Your task to perform on an android device: toggle pop-ups in chrome Image 0: 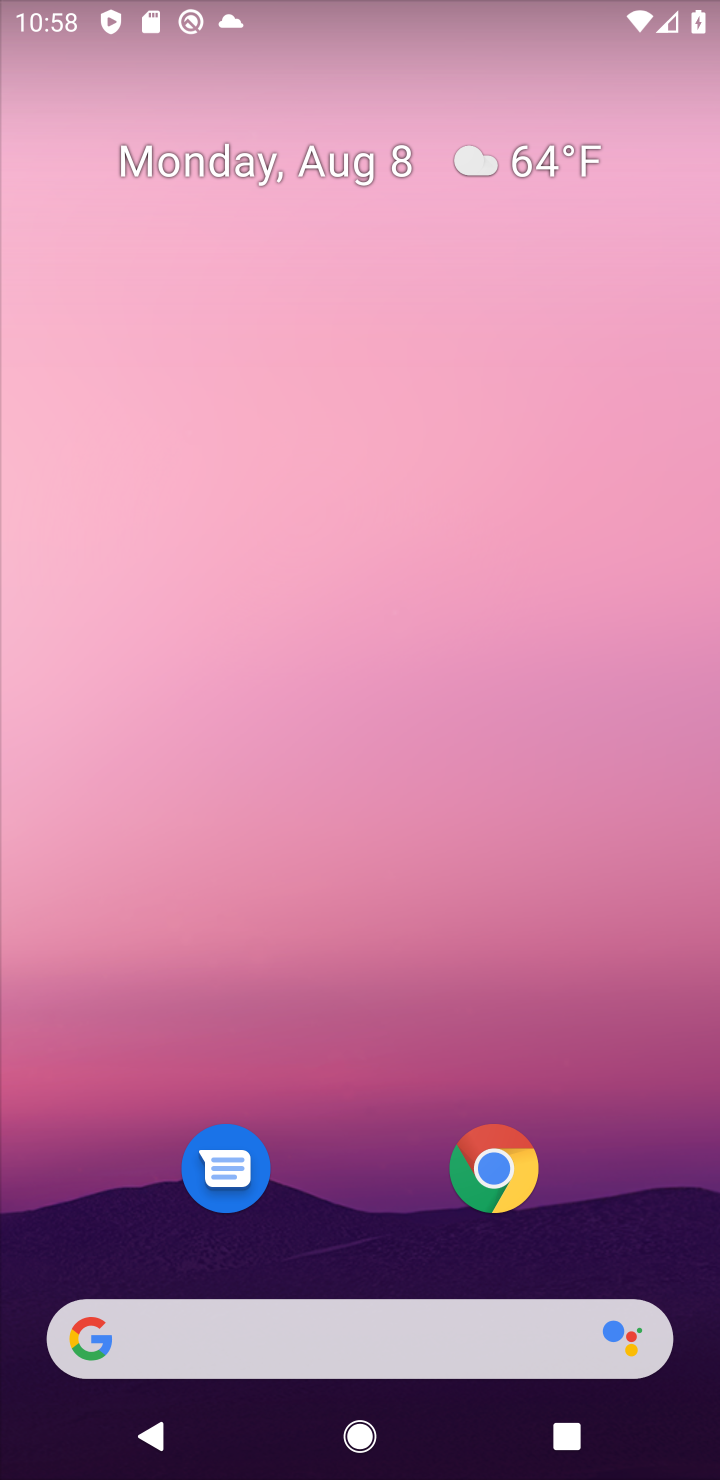
Step 0: click (502, 1171)
Your task to perform on an android device: toggle pop-ups in chrome Image 1: 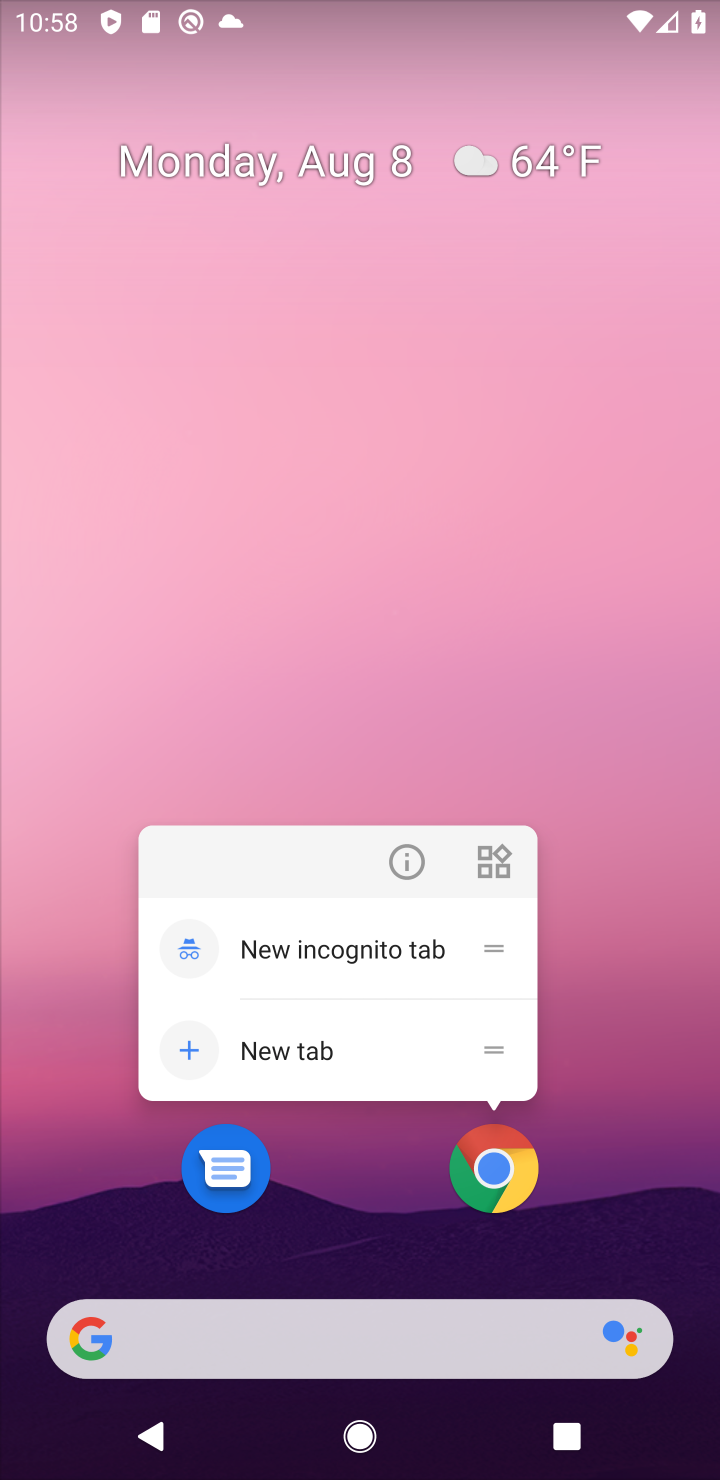
Step 1: click (503, 1170)
Your task to perform on an android device: toggle pop-ups in chrome Image 2: 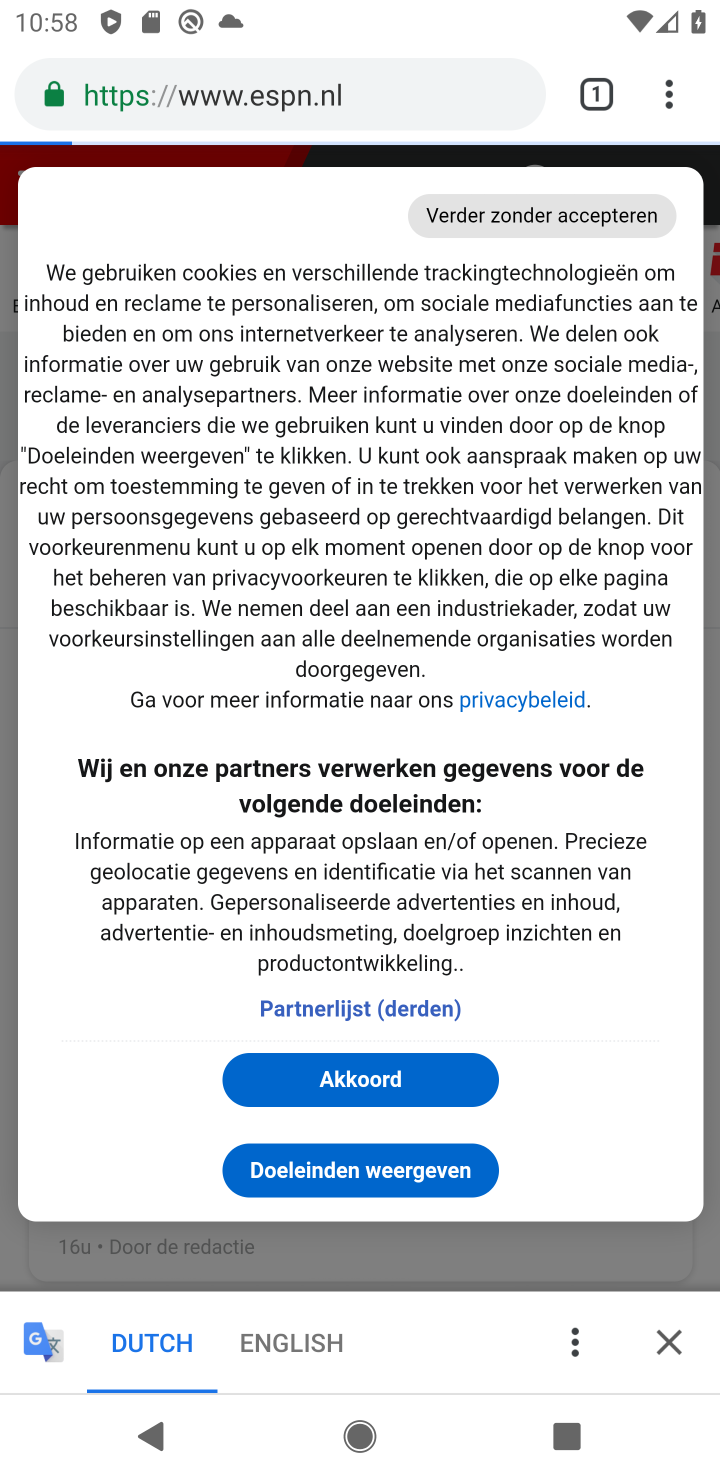
Step 2: click (690, 1334)
Your task to perform on an android device: toggle pop-ups in chrome Image 3: 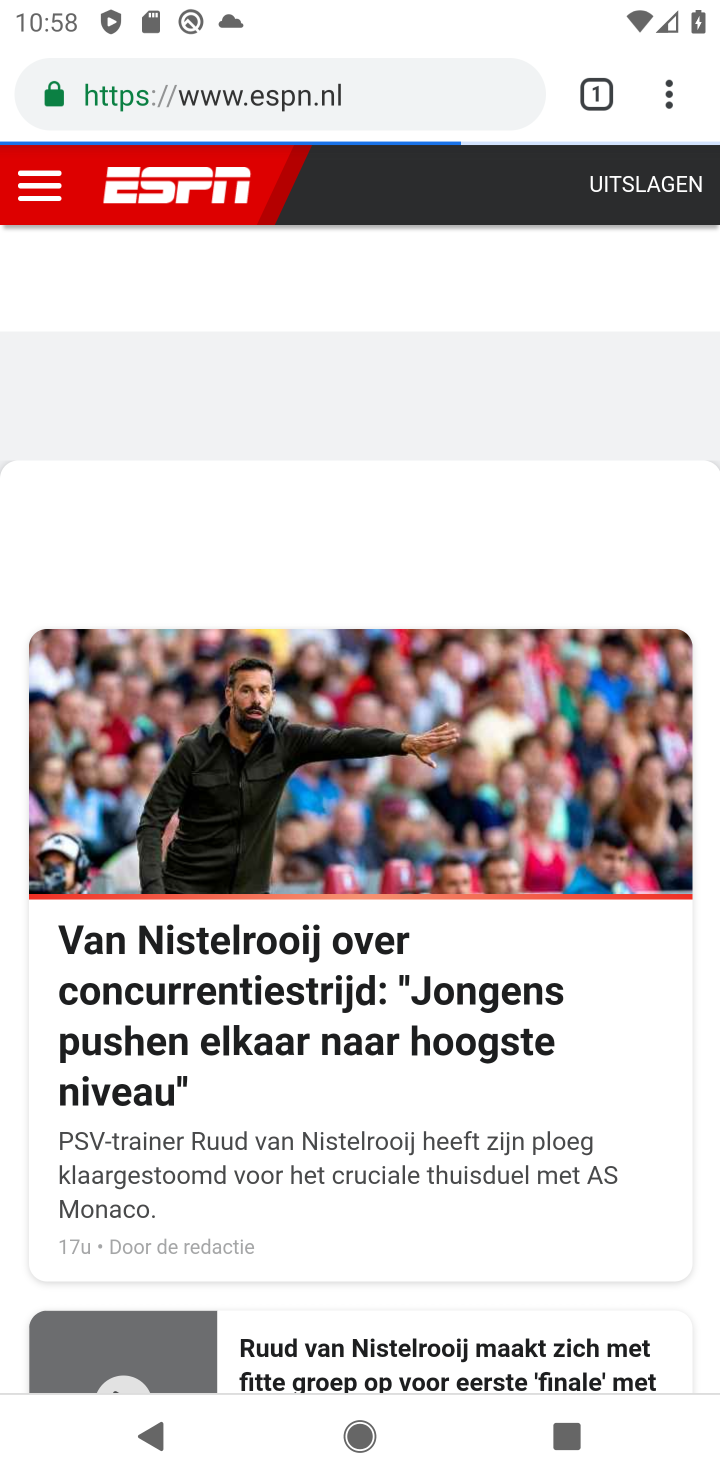
Step 3: click (668, 92)
Your task to perform on an android device: toggle pop-ups in chrome Image 4: 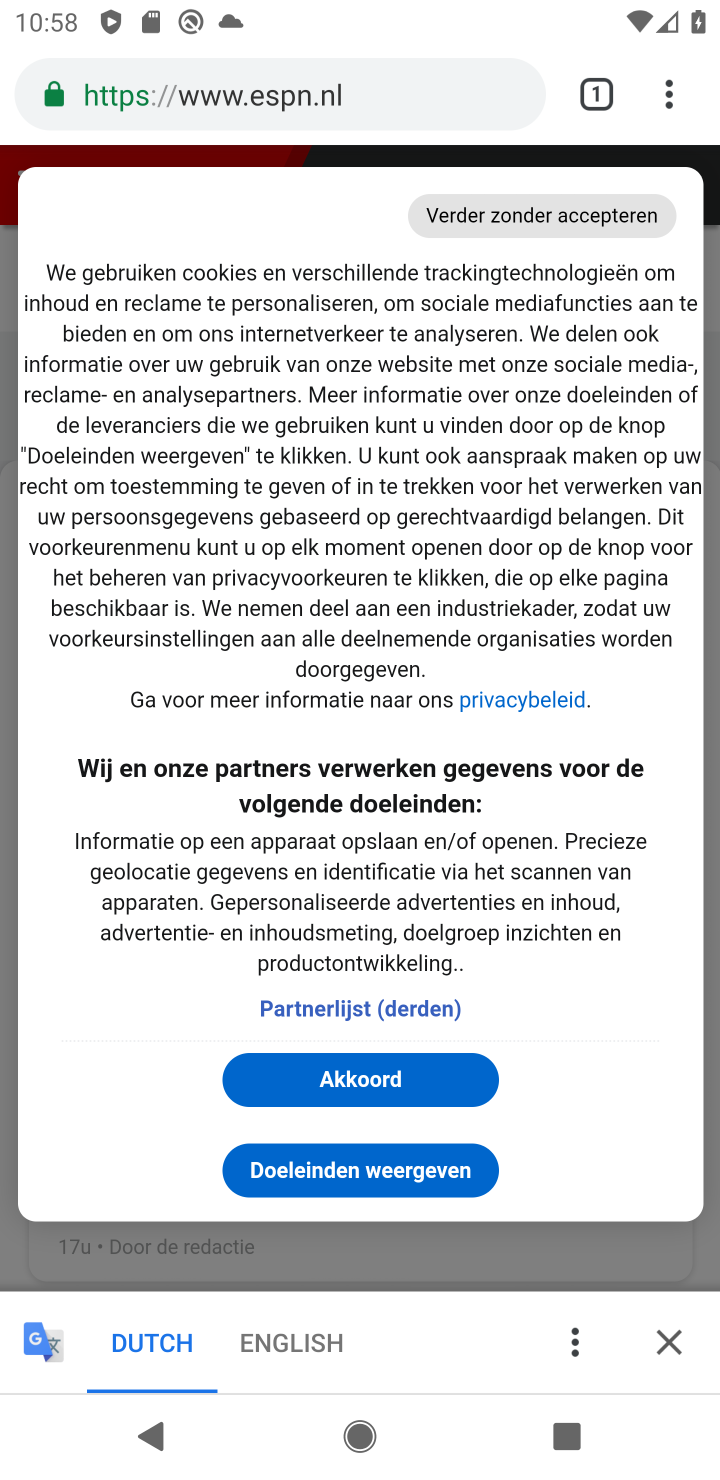
Step 4: press home button
Your task to perform on an android device: toggle pop-ups in chrome Image 5: 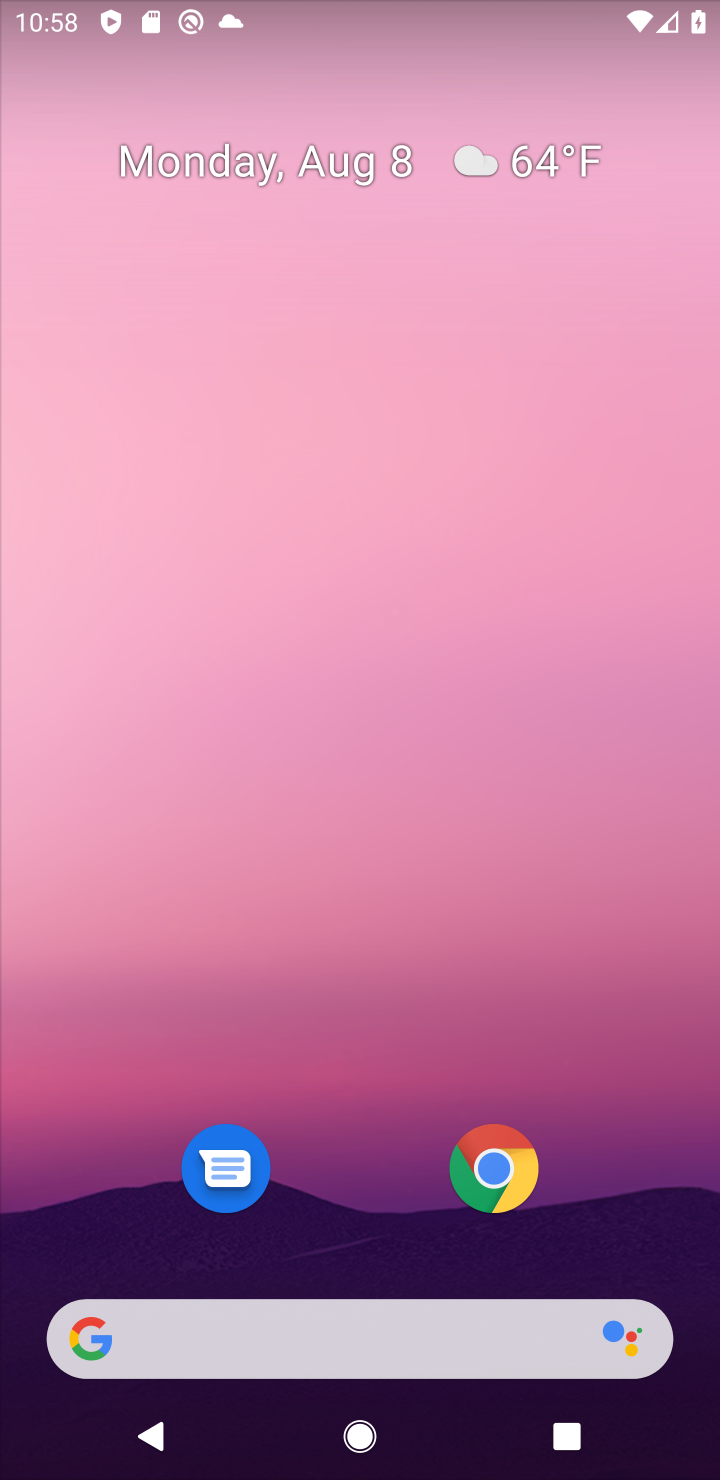
Step 5: click (479, 1150)
Your task to perform on an android device: toggle pop-ups in chrome Image 6: 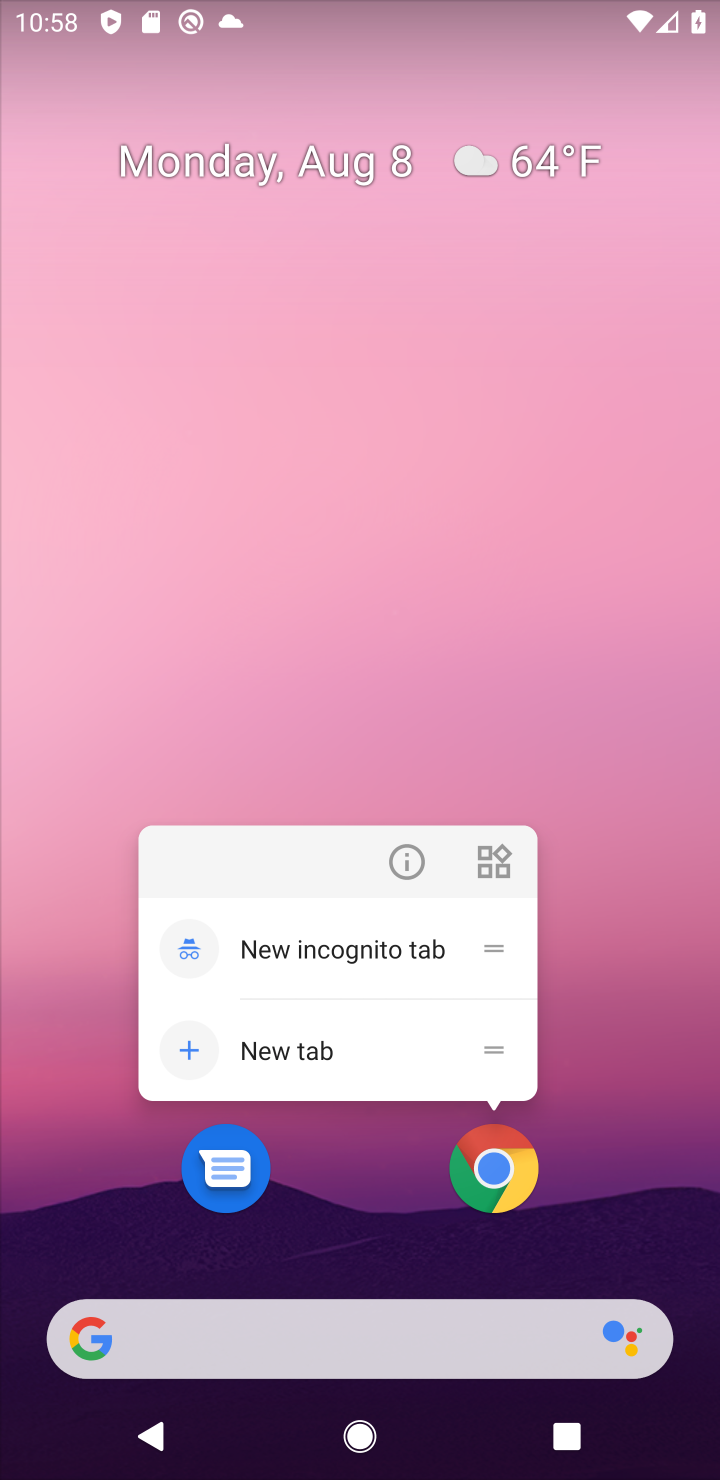
Step 6: click (492, 1153)
Your task to perform on an android device: toggle pop-ups in chrome Image 7: 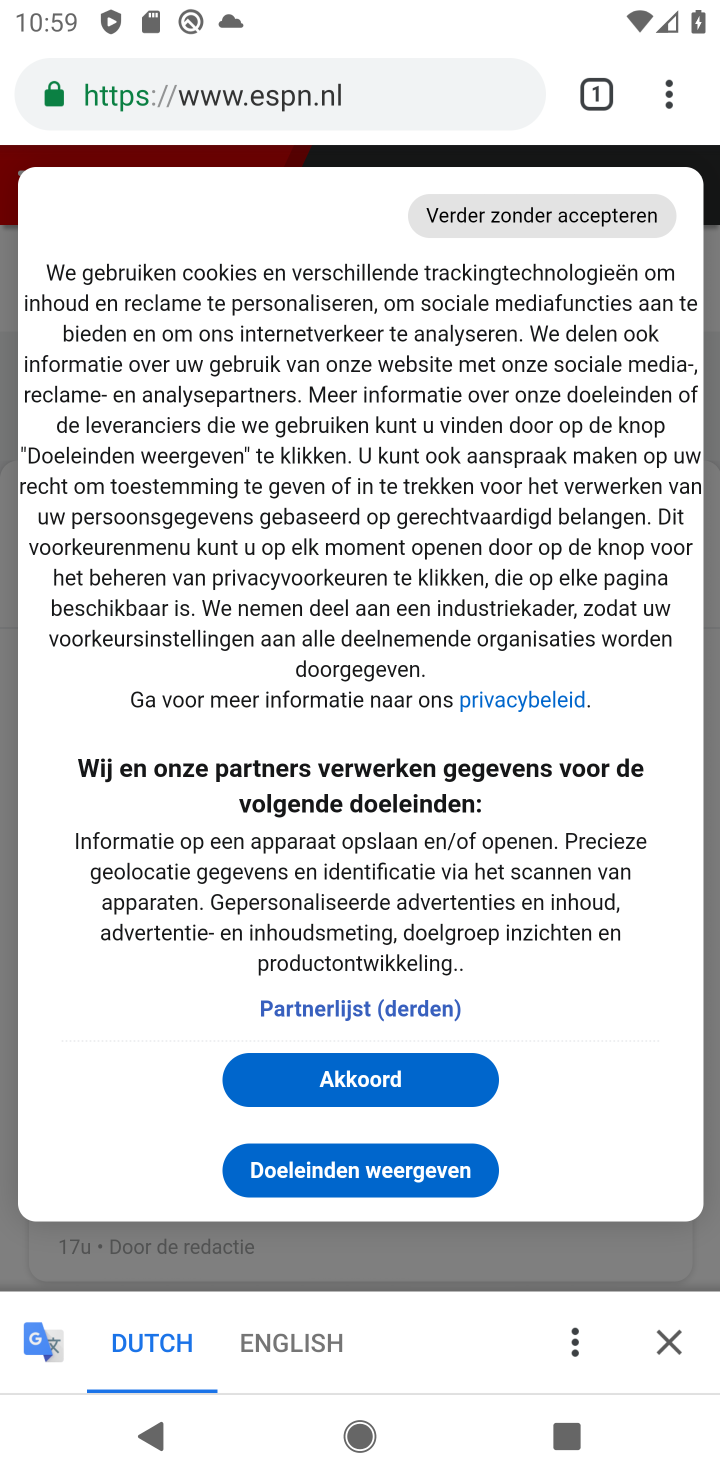
Step 7: click (586, 103)
Your task to perform on an android device: toggle pop-ups in chrome Image 8: 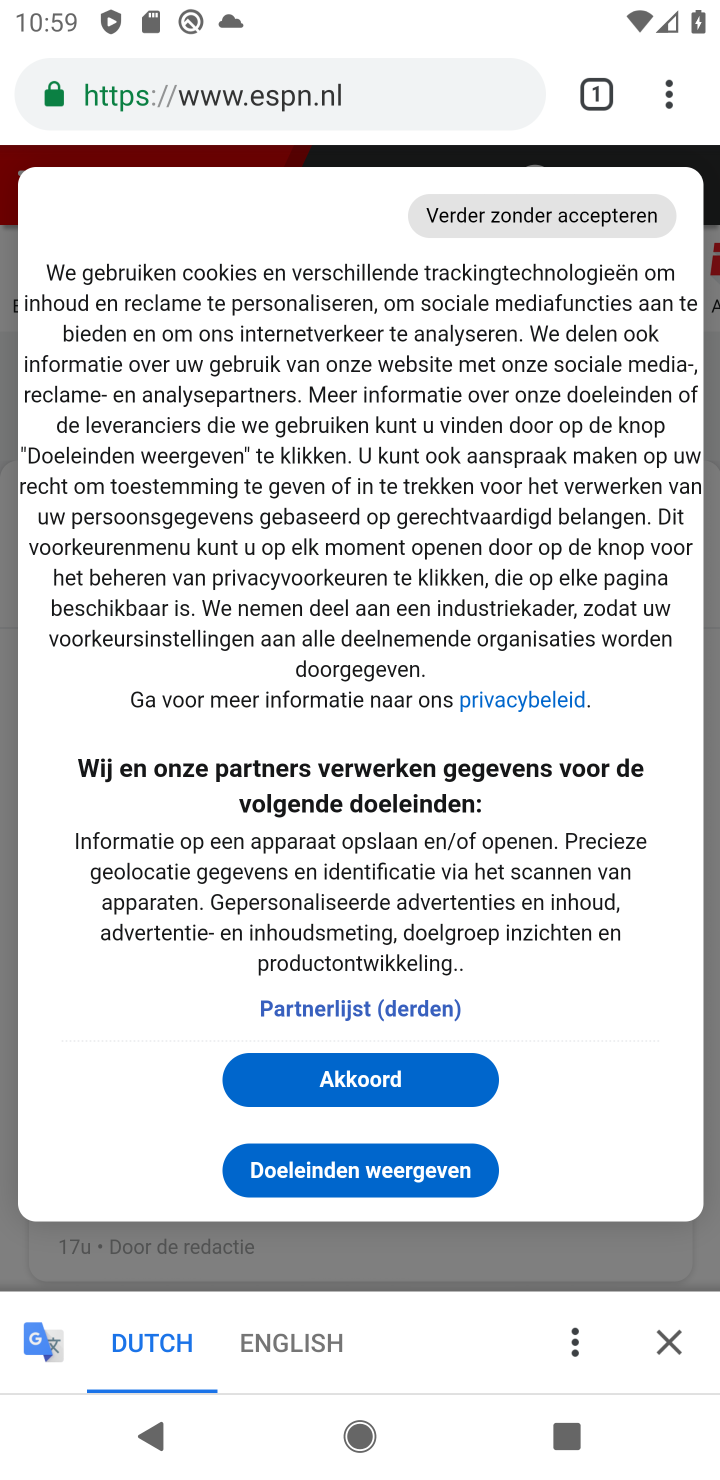
Step 8: click (612, 97)
Your task to perform on an android device: toggle pop-ups in chrome Image 9: 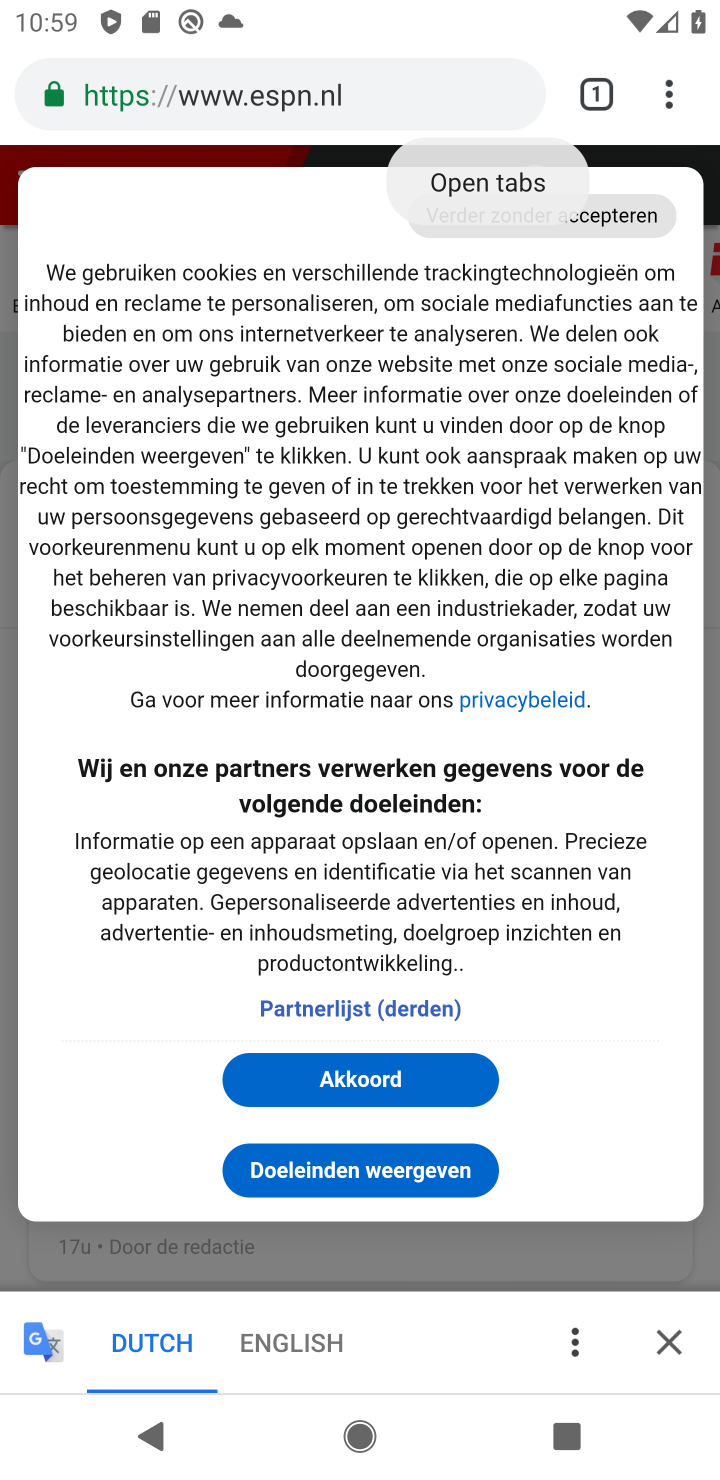
Step 9: click (612, 101)
Your task to perform on an android device: toggle pop-ups in chrome Image 10: 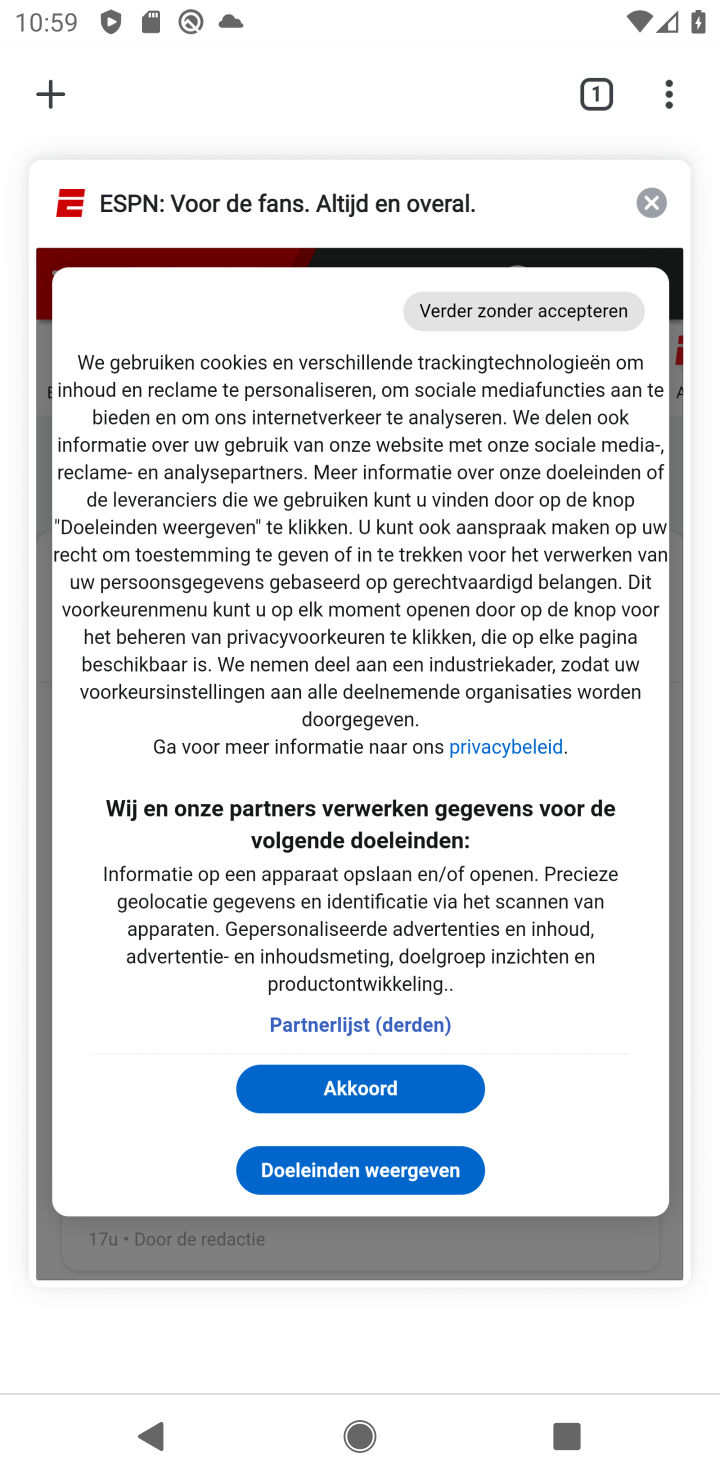
Step 10: click (655, 197)
Your task to perform on an android device: toggle pop-ups in chrome Image 11: 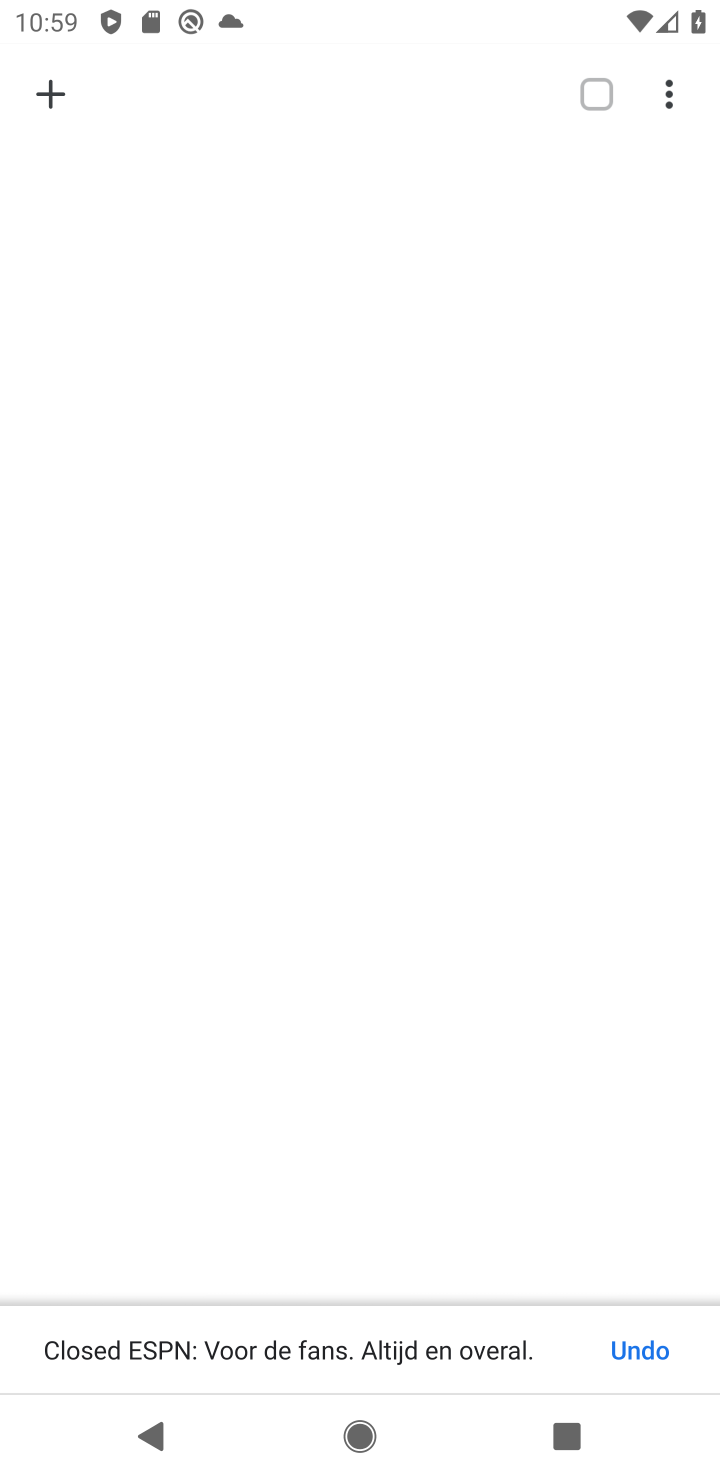
Step 11: click (49, 84)
Your task to perform on an android device: toggle pop-ups in chrome Image 12: 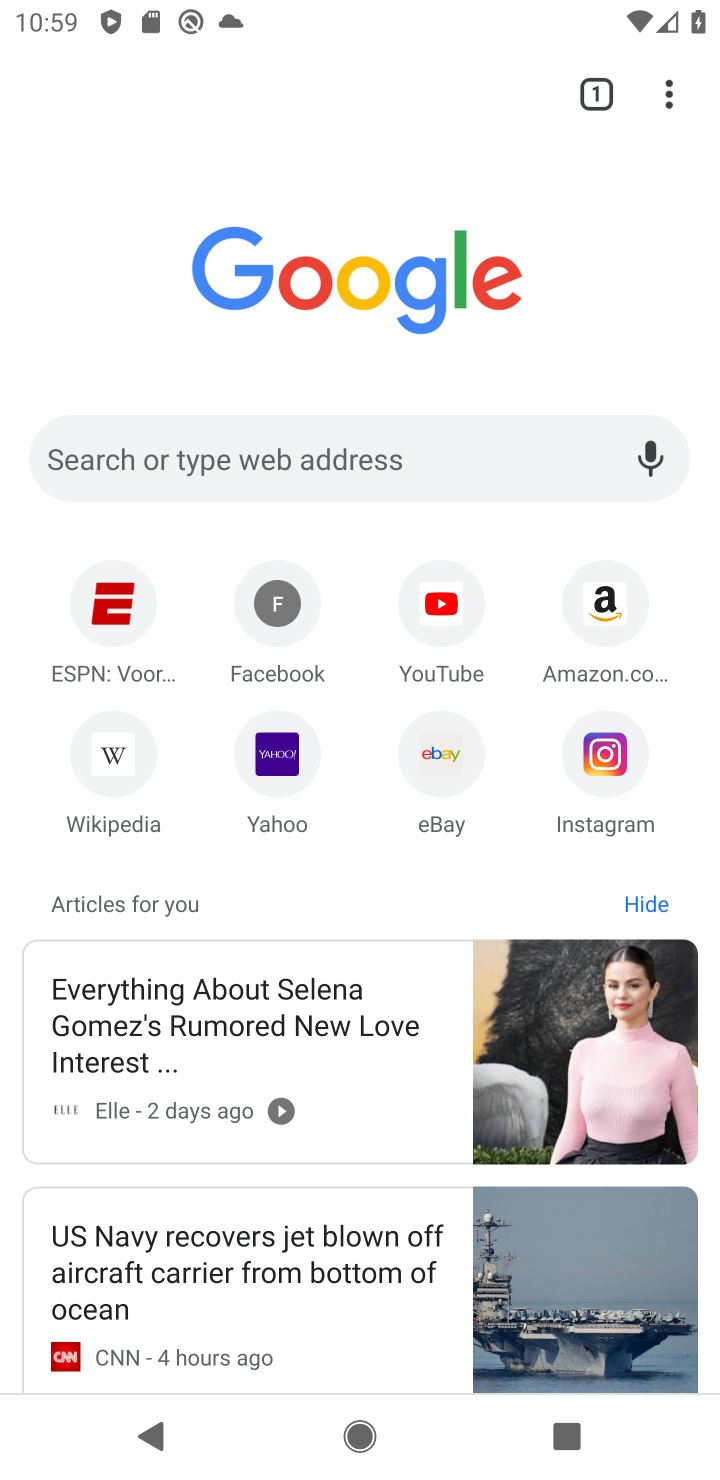
Step 12: click (678, 110)
Your task to perform on an android device: toggle pop-ups in chrome Image 13: 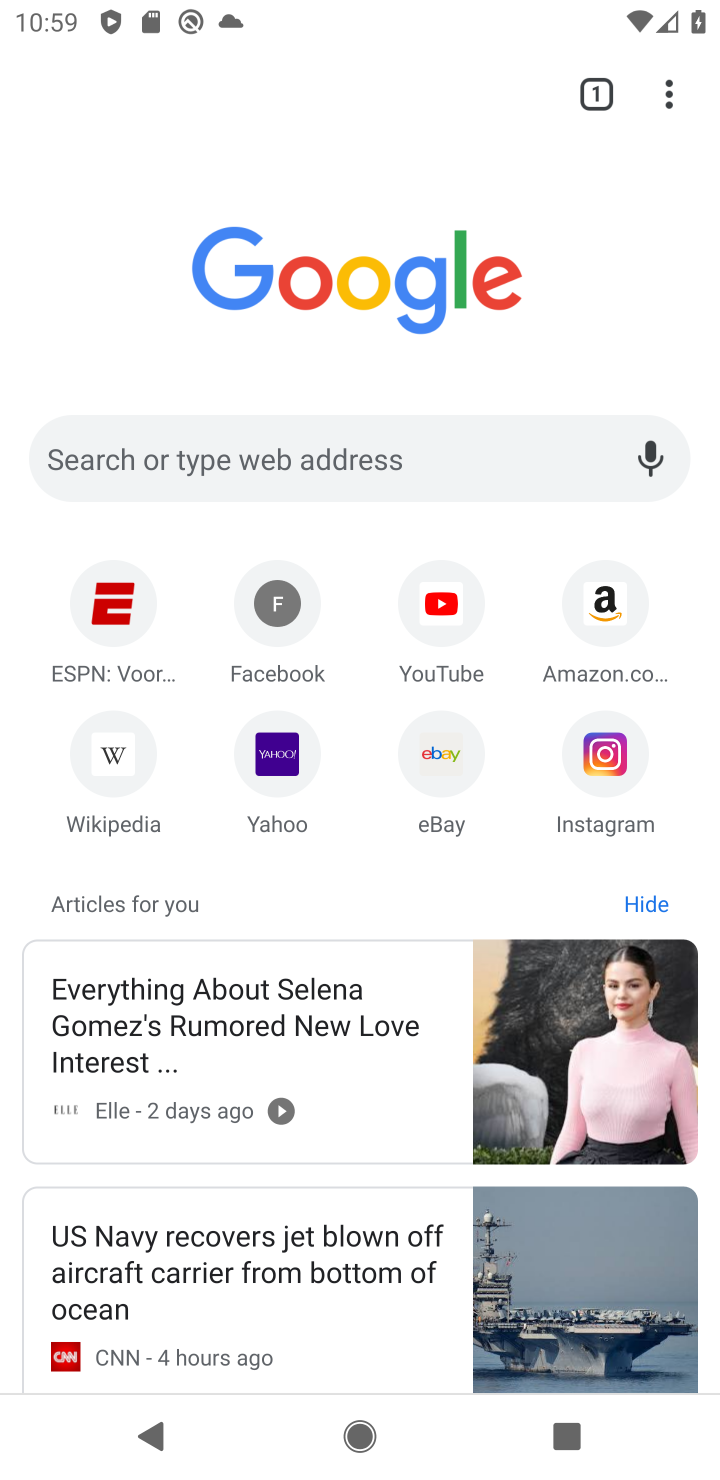
Step 13: click (673, 93)
Your task to perform on an android device: toggle pop-ups in chrome Image 14: 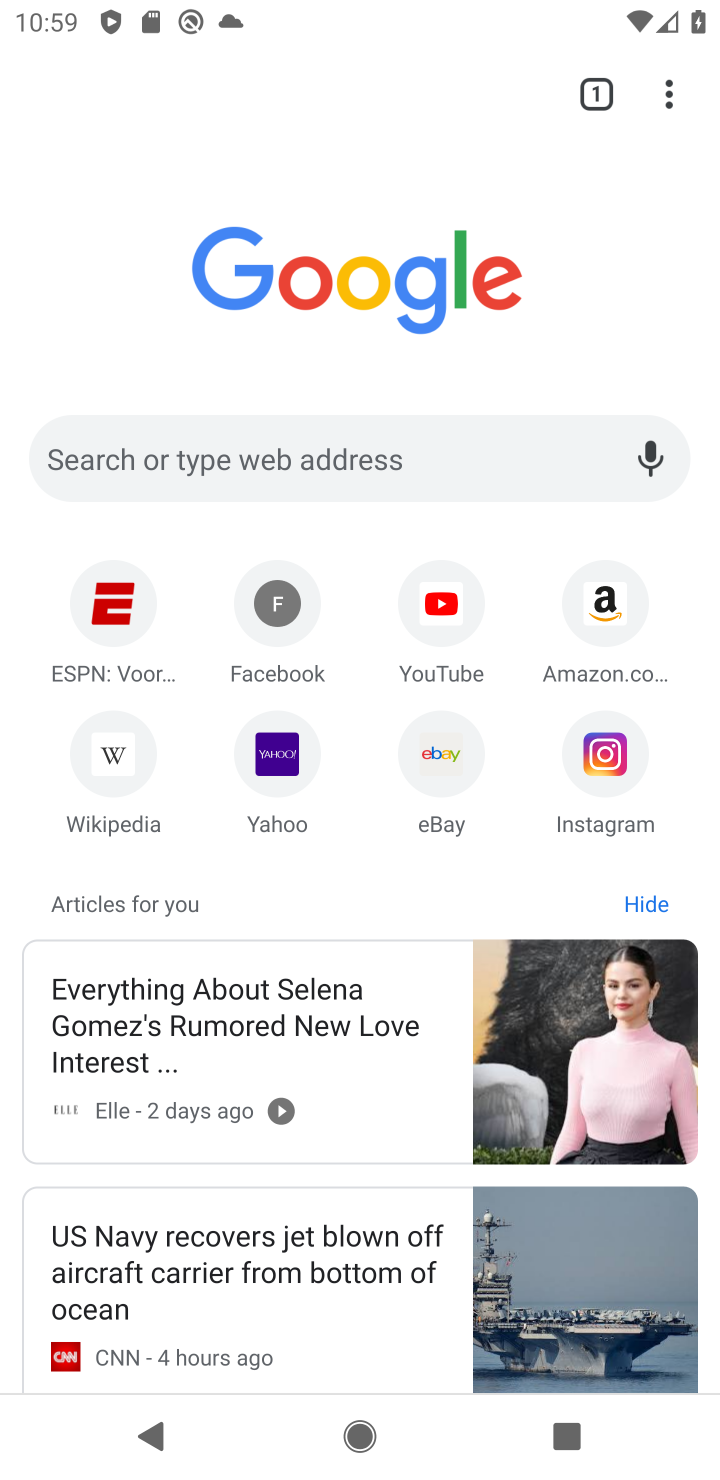
Step 14: click (669, 87)
Your task to perform on an android device: toggle pop-ups in chrome Image 15: 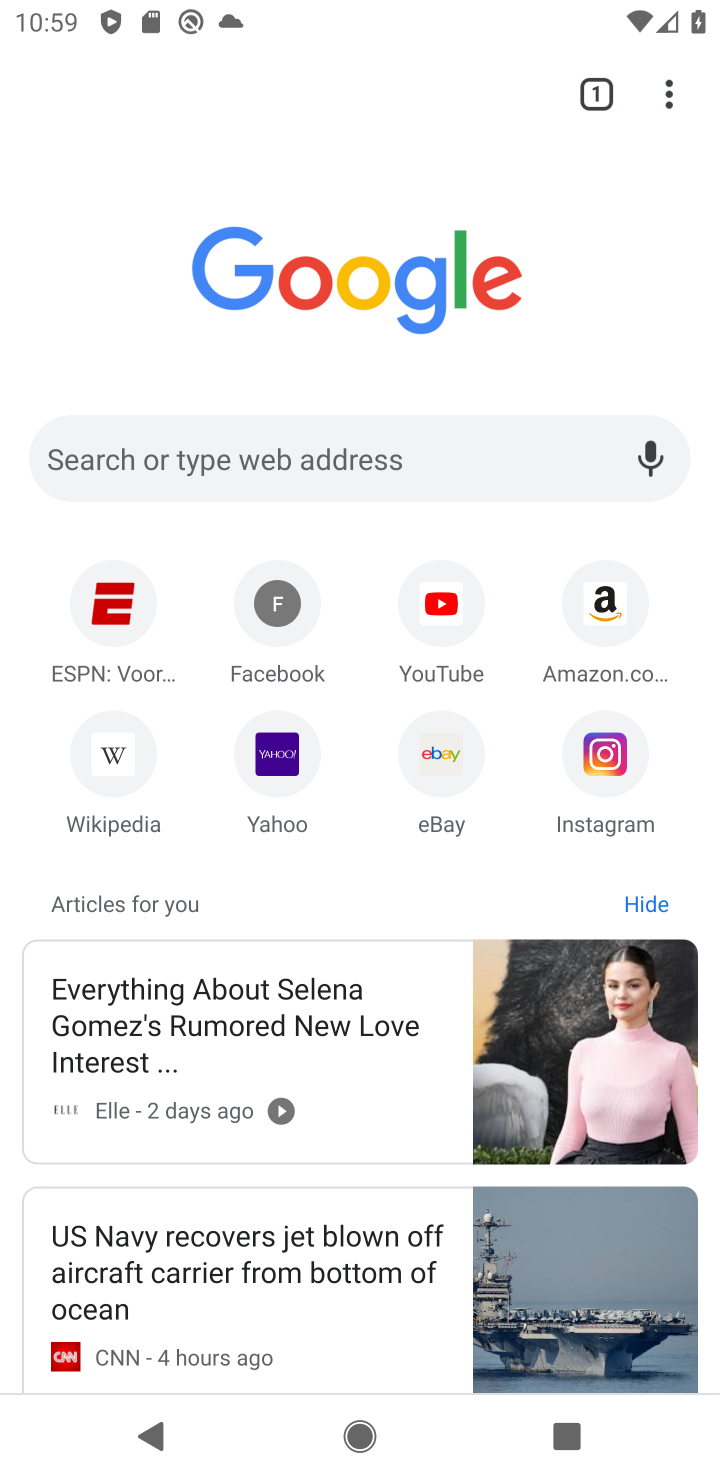
Step 15: click (661, 76)
Your task to perform on an android device: toggle pop-ups in chrome Image 16: 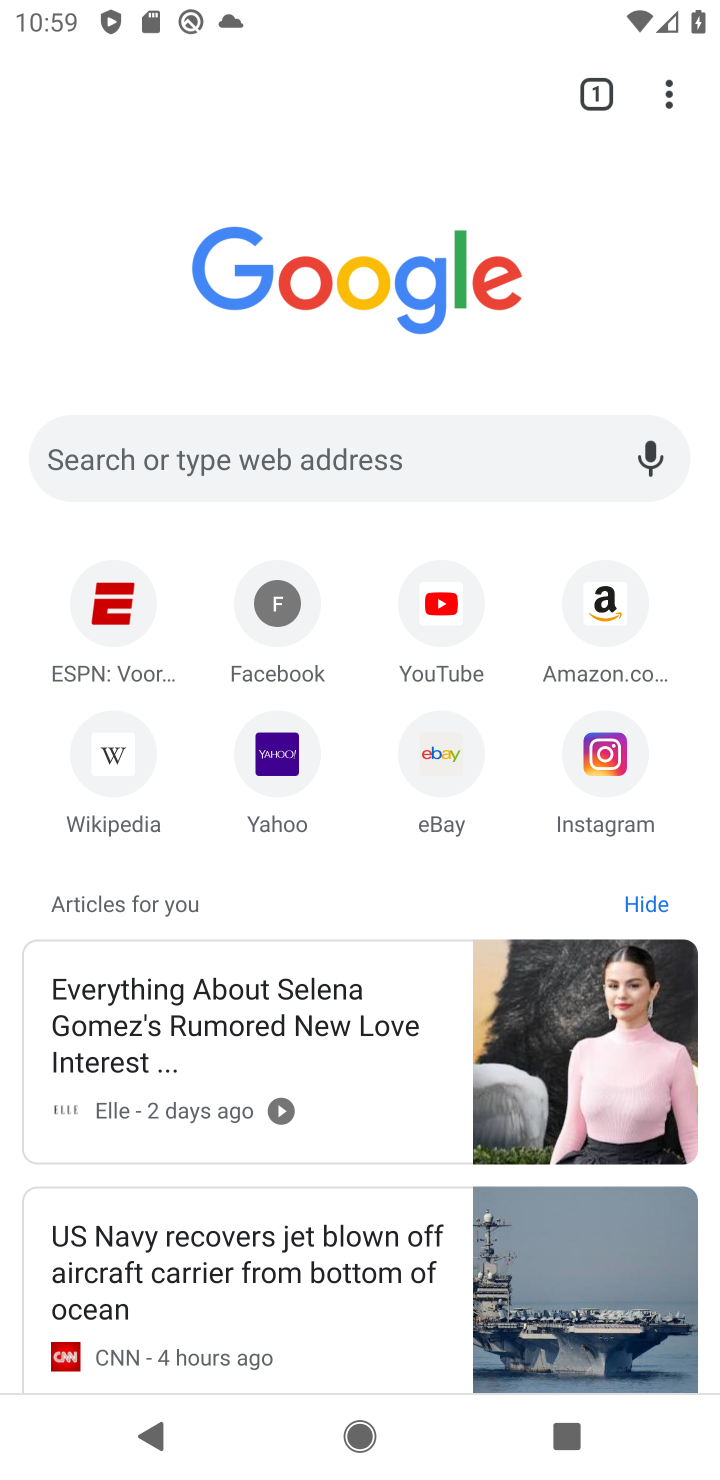
Step 16: click (674, 91)
Your task to perform on an android device: toggle pop-ups in chrome Image 17: 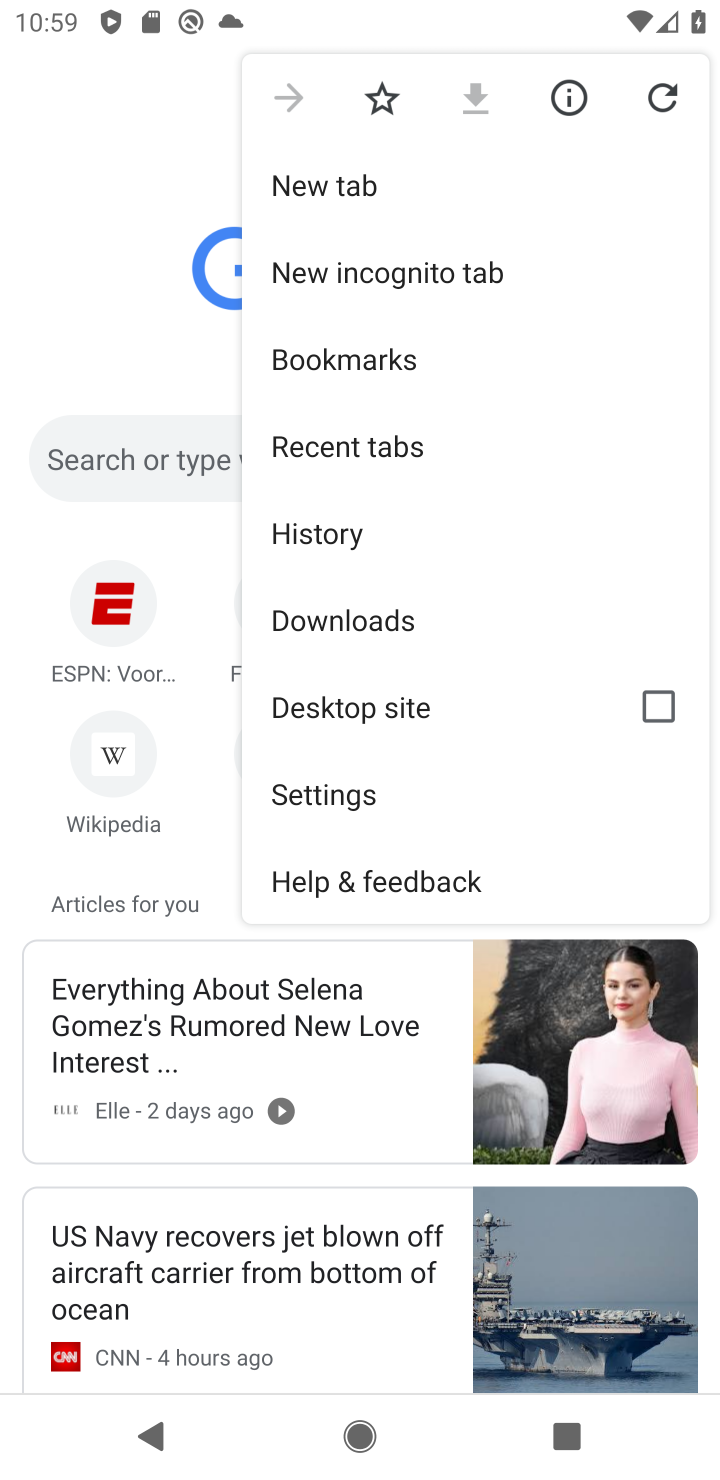
Step 17: click (339, 796)
Your task to perform on an android device: toggle pop-ups in chrome Image 18: 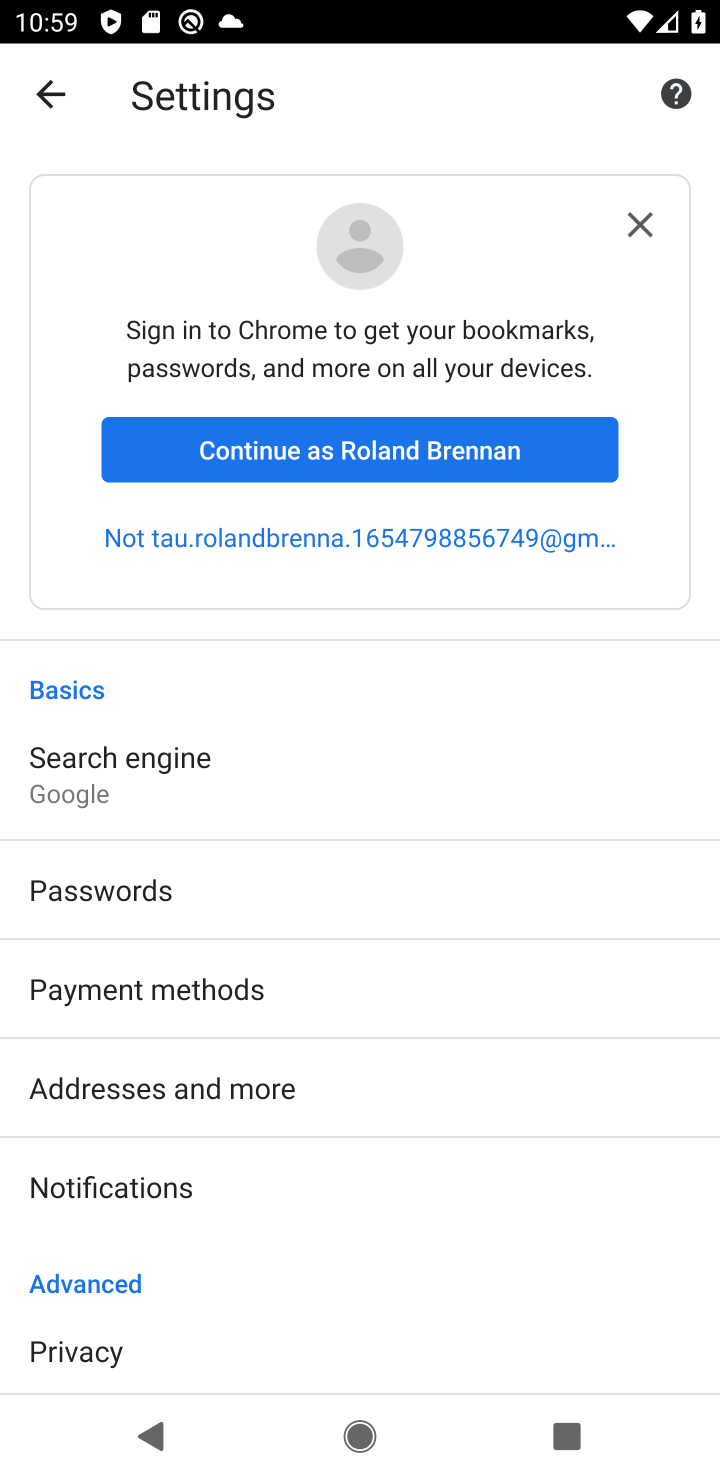
Step 18: drag from (65, 941) to (249, 358)
Your task to perform on an android device: toggle pop-ups in chrome Image 19: 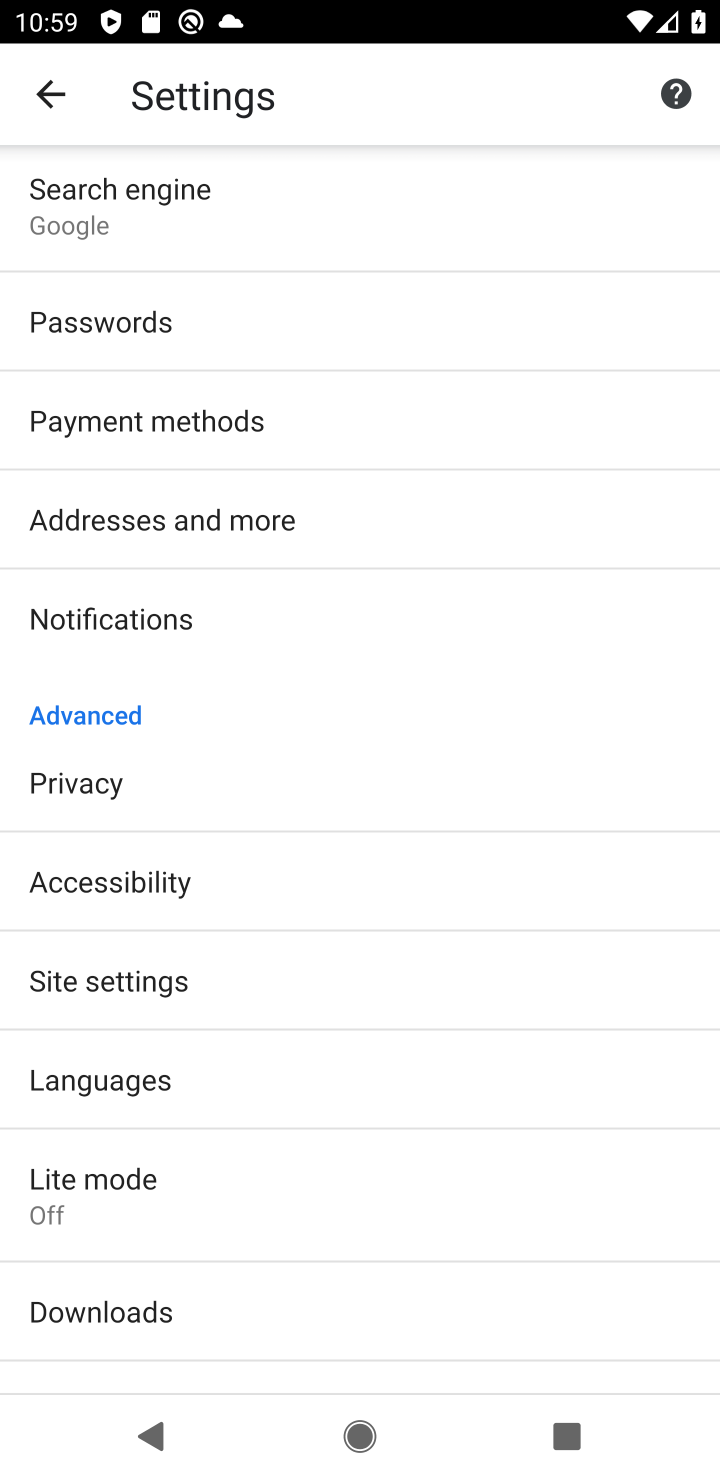
Step 19: click (245, 969)
Your task to perform on an android device: toggle pop-ups in chrome Image 20: 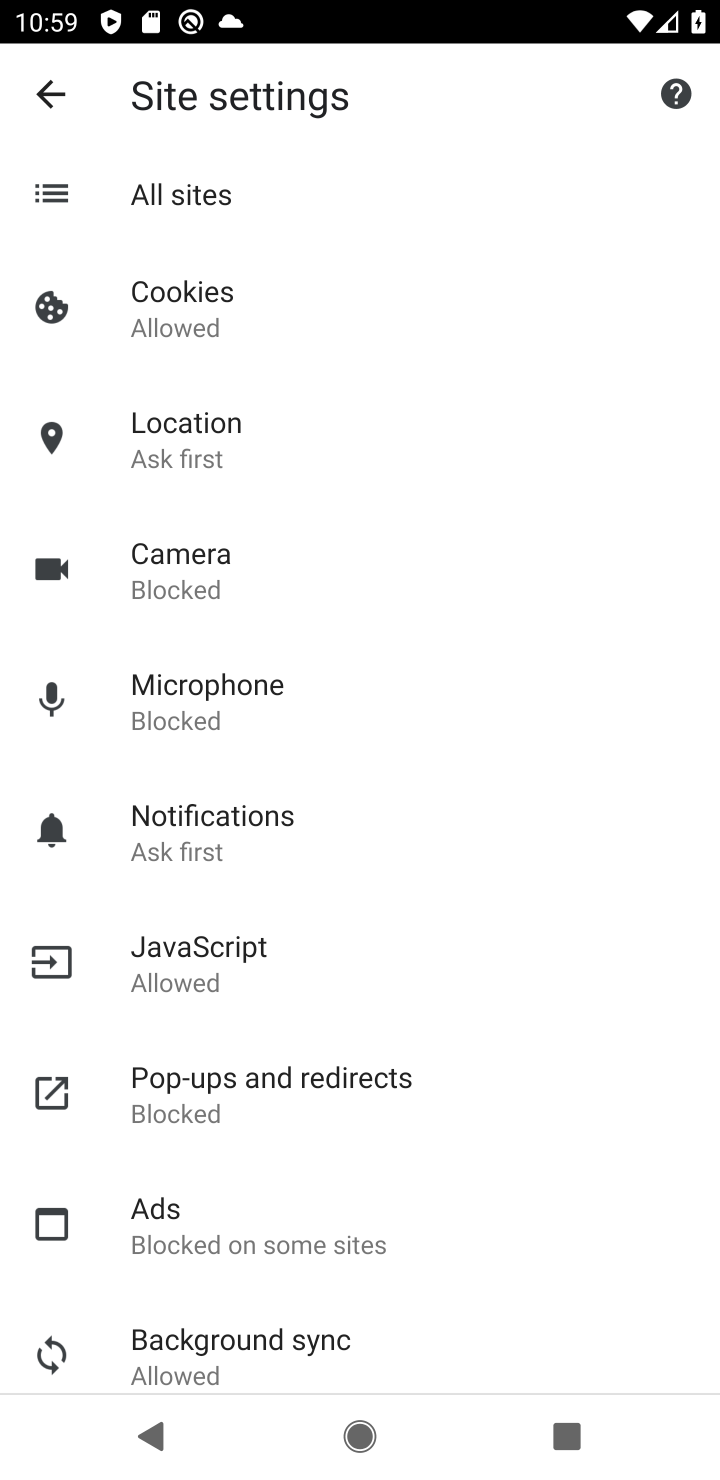
Step 20: click (294, 1089)
Your task to perform on an android device: toggle pop-ups in chrome Image 21: 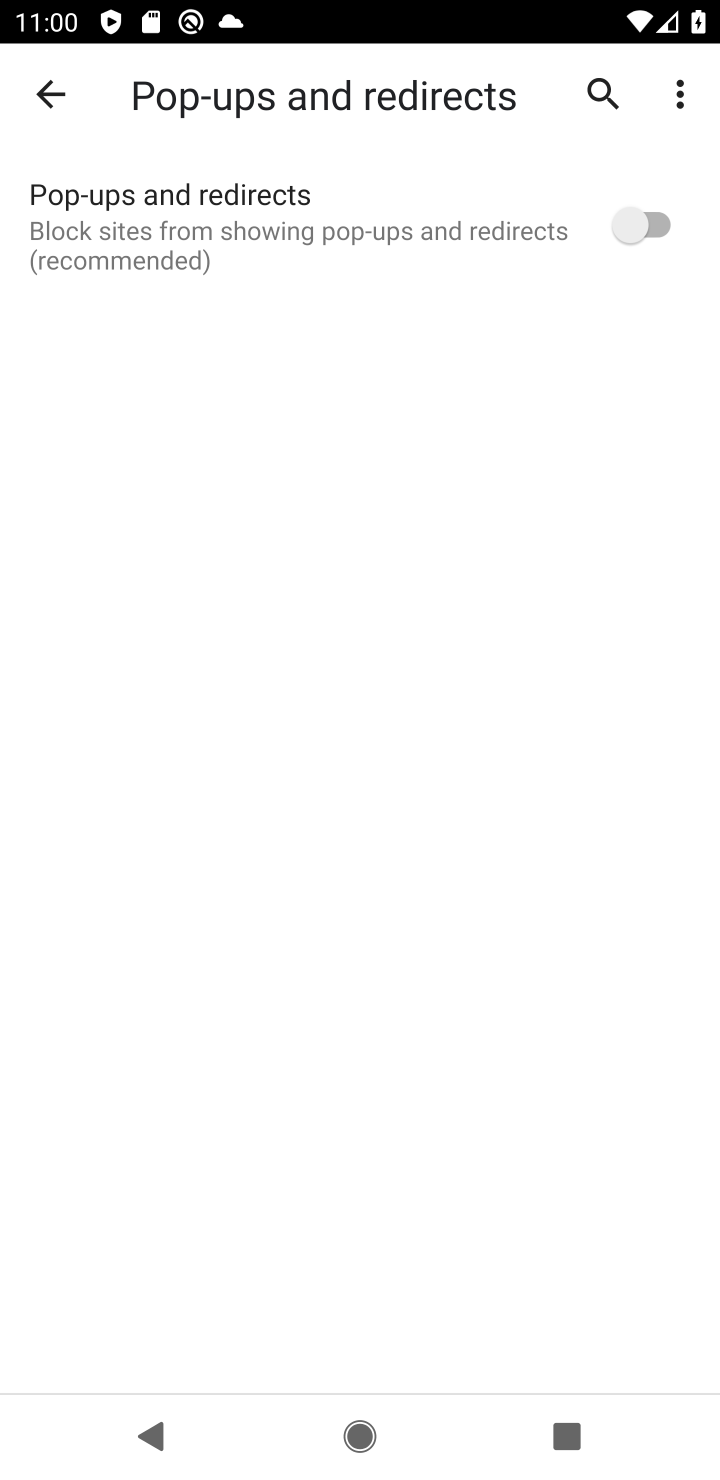
Step 21: click (633, 231)
Your task to perform on an android device: toggle pop-ups in chrome Image 22: 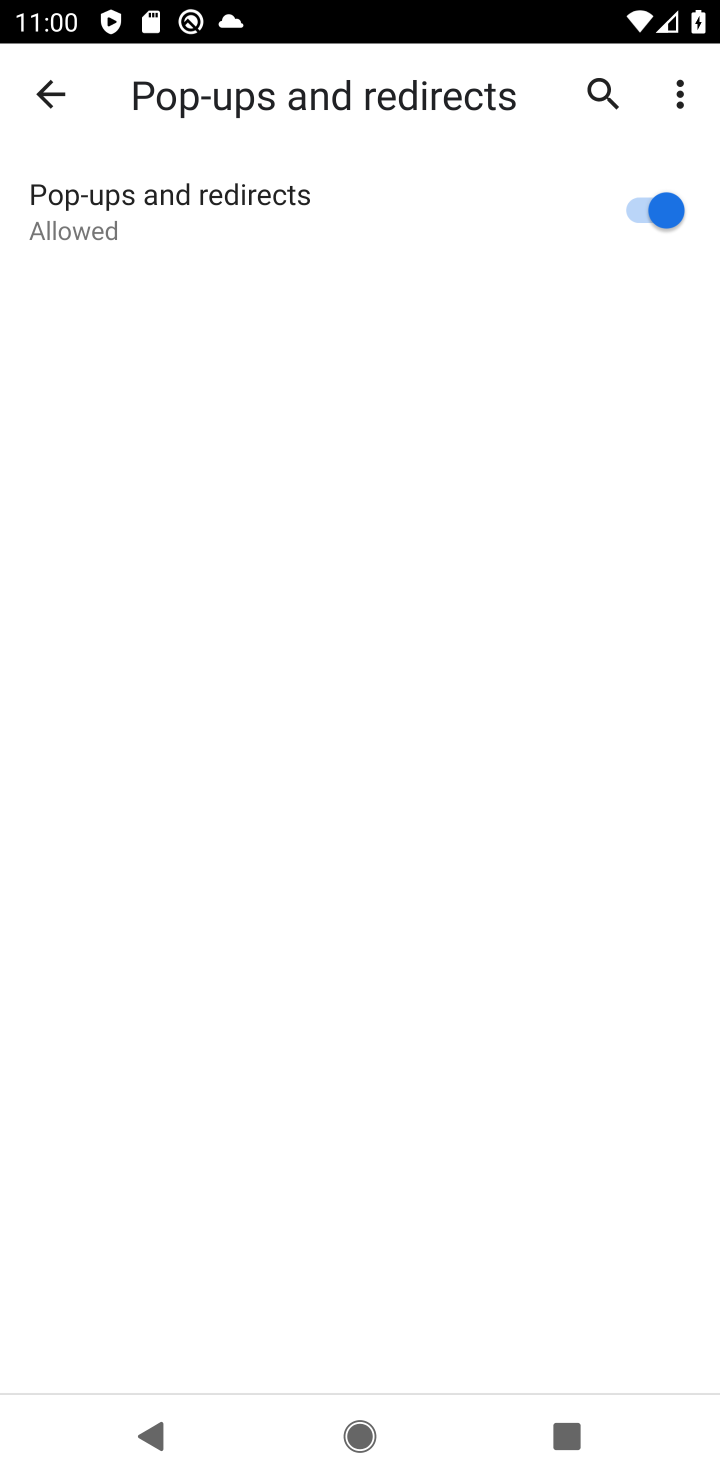
Step 22: task complete